Your task to perform on an android device: Go to accessibility settings Image 0: 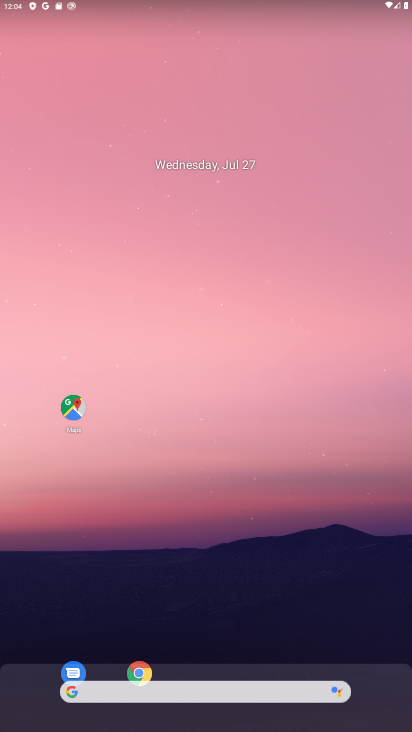
Step 0: drag from (289, 686) to (276, 4)
Your task to perform on an android device: Go to accessibility settings Image 1: 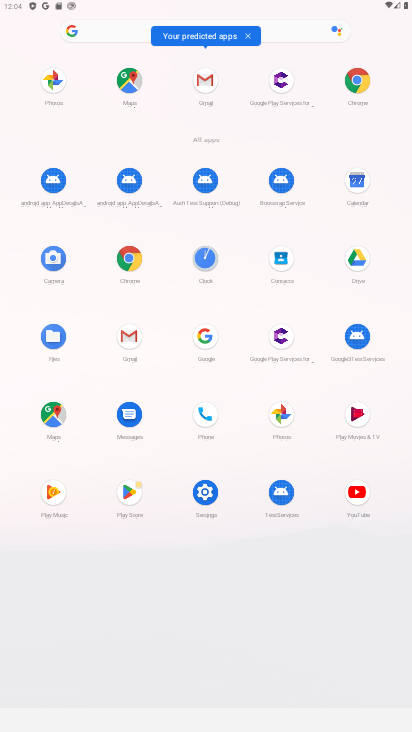
Step 1: click (209, 503)
Your task to perform on an android device: Go to accessibility settings Image 2: 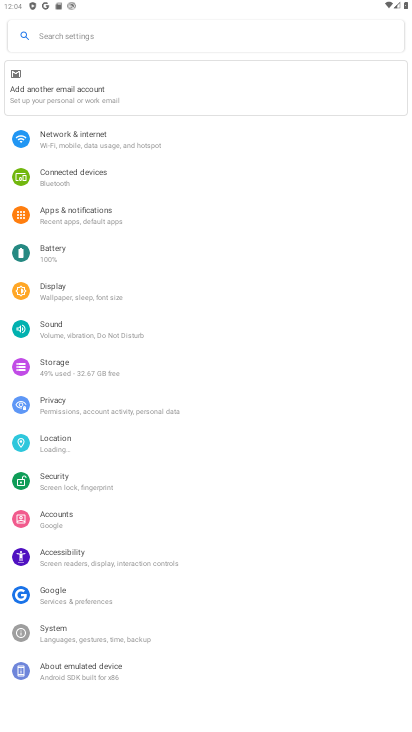
Step 2: click (53, 558)
Your task to perform on an android device: Go to accessibility settings Image 3: 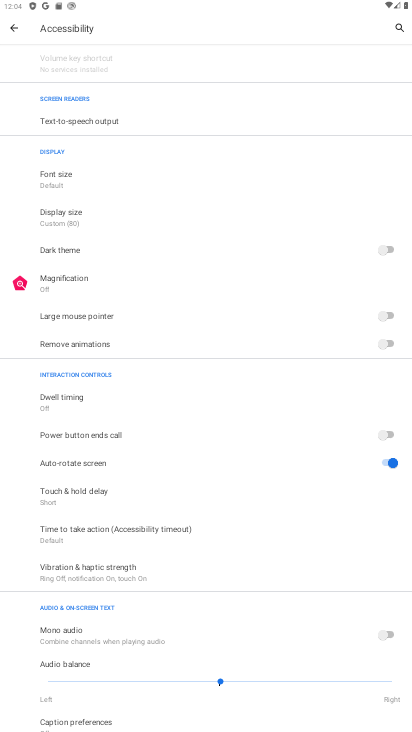
Step 3: task complete